Your task to perform on an android device: Turn on the flashlight Image 0: 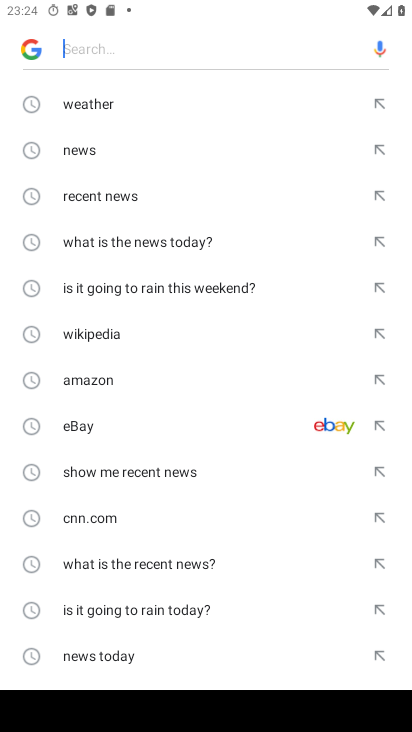
Step 0: press home button
Your task to perform on an android device: Turn on the flashlight Image 1: 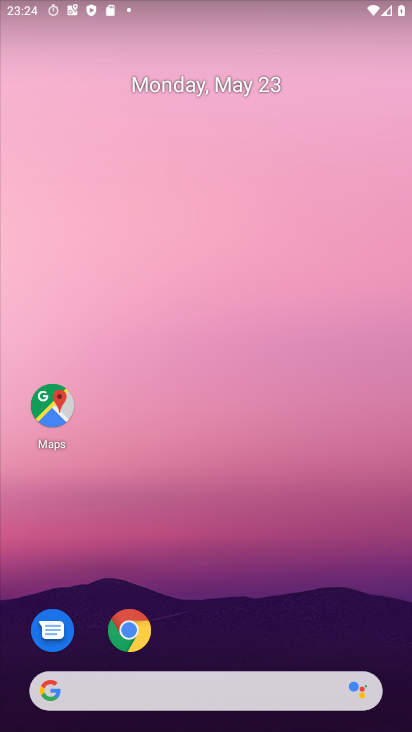
Step 1: task complete